Your task to perform on an android device: change alarm snooze length Image 0: 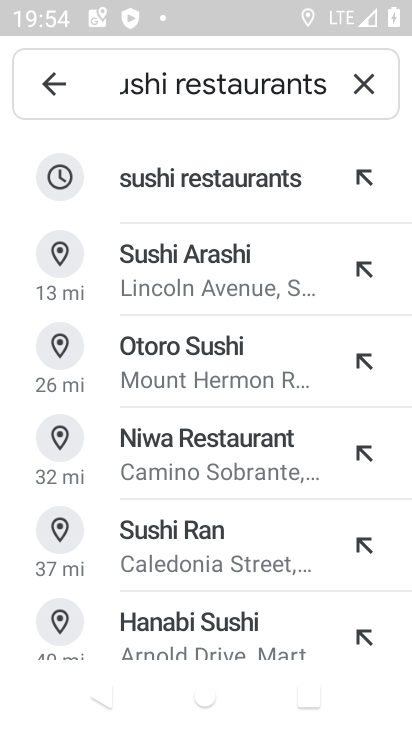
Step 0: press home button
Your task to perform on an android device: change alarm snooze length Image 1: 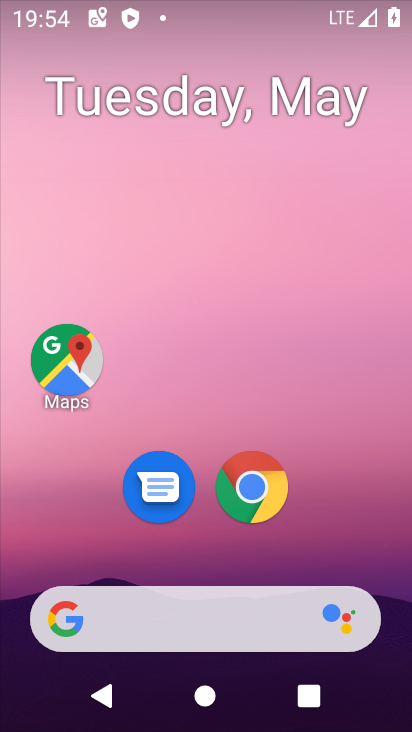
Step 1: drag from (337, 530) to (227, 0)
Your task to perform on an android device: change alarm snooze length Image 2: 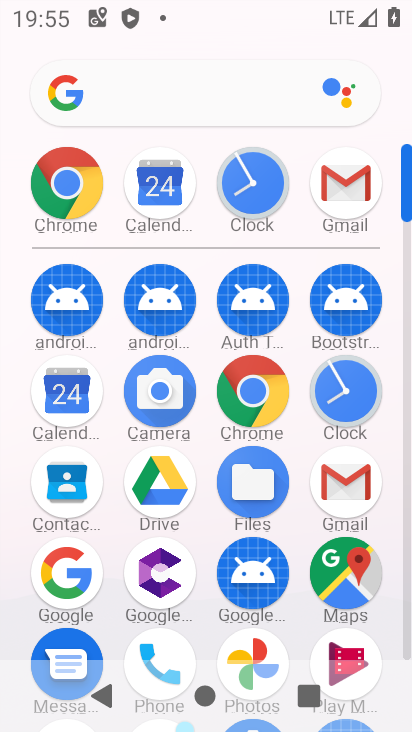
Step 2: click (352, 390)
Your task to perform on an android device: change alarm snooze length Image 3: 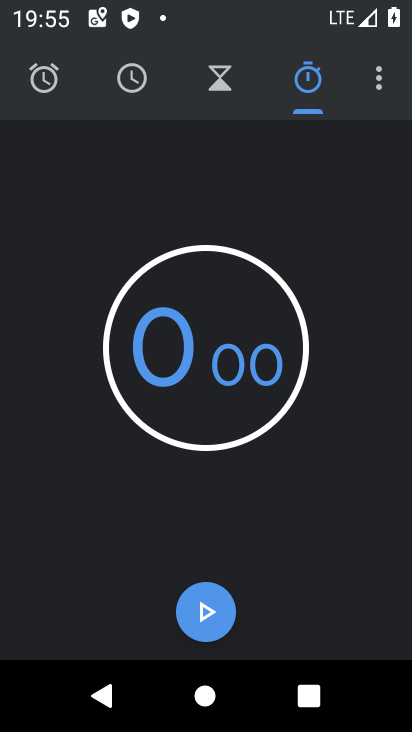
Step 3: click (380, 72)
Your task to perform on an android device: change alarm snooze length Image 4: 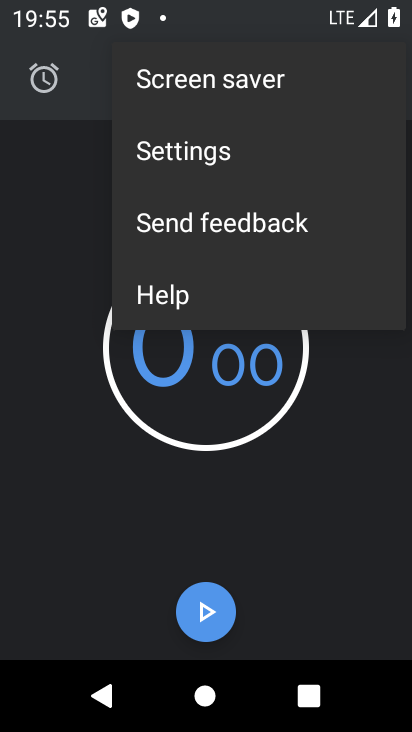
Step 4: click (163, 143)
Your task to perform on an android device: change alarm snooze length Image 5: 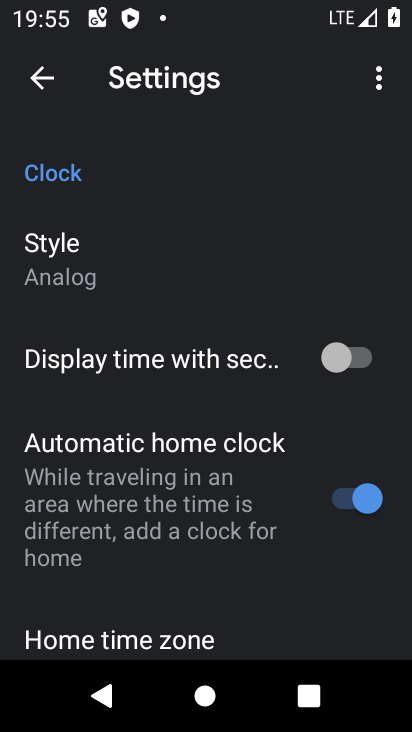
Step 5: drag from (233, 577) to (228, 127)
Your task to perform on an android device: change alarm snooze length Image 6: 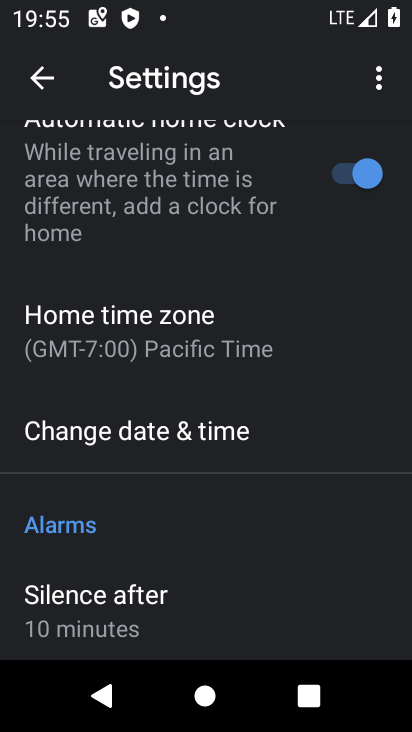
Step 6: drag from (214, 488) to (193, 111)
Your task to perform on an android device: change alarm snooze length Image 7: 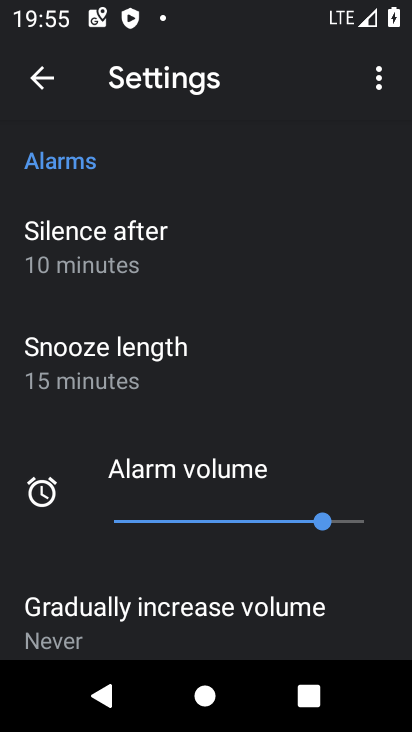
Step 7: click (139, 347)
Your task to perform on an android device: change alarm snooze length Image 8: 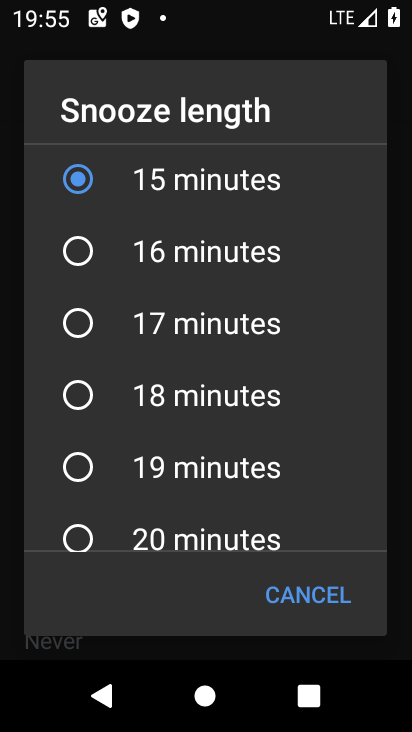
Step 8: click (74, 243)
Your task to perform on an android device: change alarm snooze length Image 9: 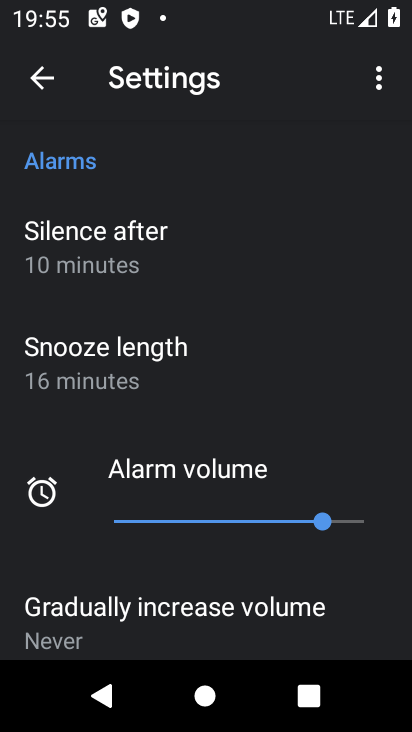
Step 9: task complete